Your task to perform on an android device: open the mobile data screen to see how much data has been used Image 0: 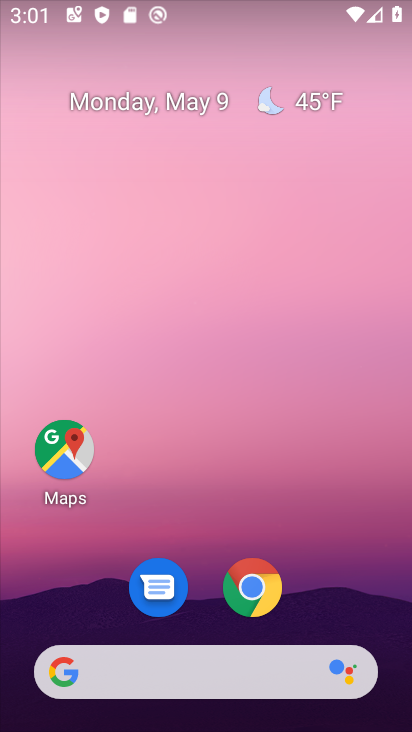
Step 0: drag from (204, 623) to (218, 265)
Your task to perform on an android device: open the mobile data screen to see how much data has been used Image 1: 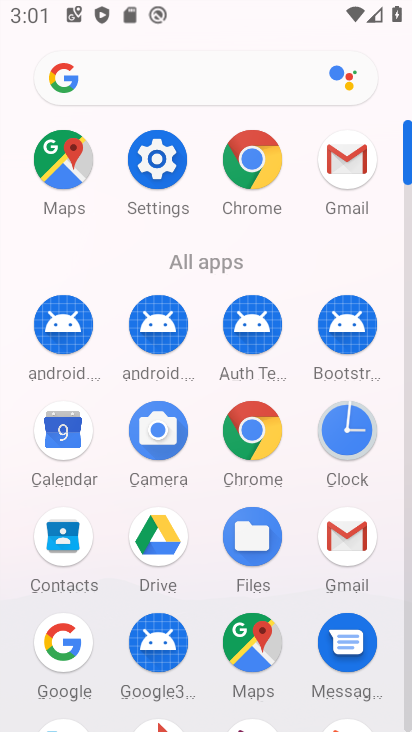
Step 1: drag from (123, 623) to (186, 435)
Your task to perform on an android device: open the mobile data screen to see how much data has been used Image 2: 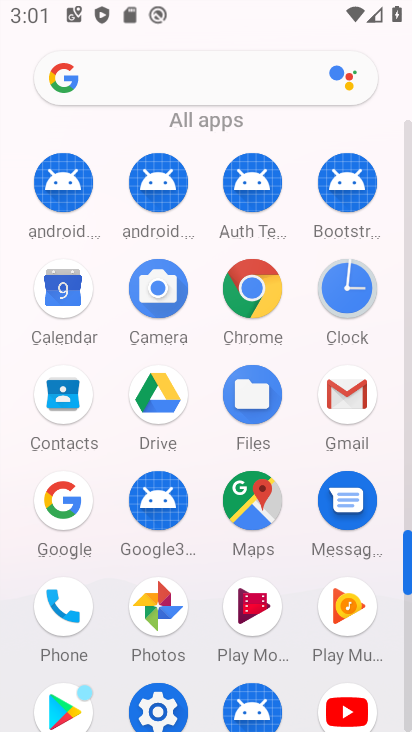
Step 2: click (160, 703)
Your task to perform on an android device: open the mobile data screen to see how much data has been used Image 3: 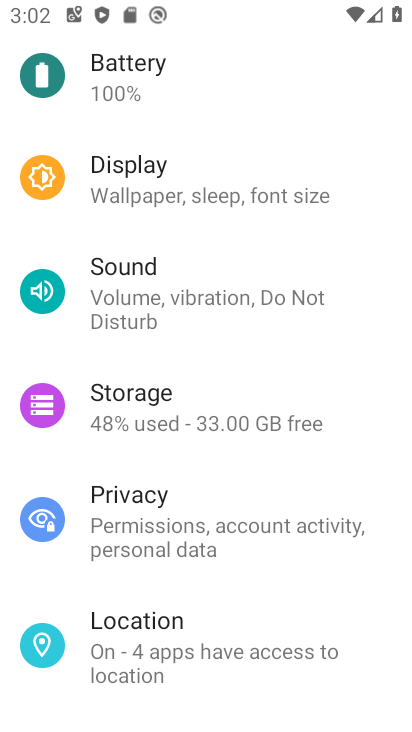
Step 3: drag from (320, 99) to (295, 322)
Your task to perform on an android device: open the mobile data screen to see how much data has been used Image 4: 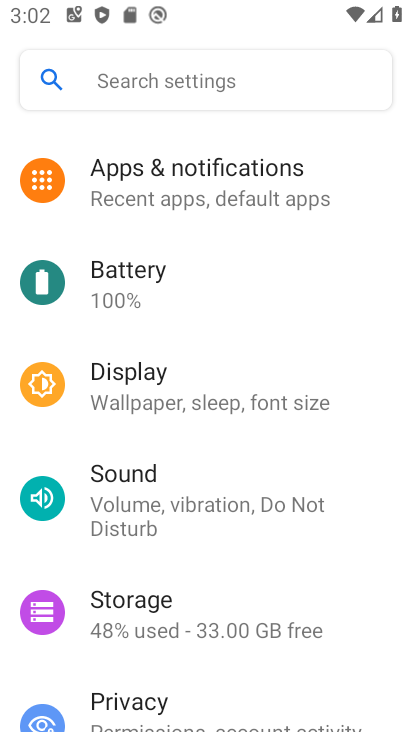
Step 4: drag from (296, 215) to (268, 412)
Your task to perform on an android device: open the mobile data screen to see how much data has been used Image 5: 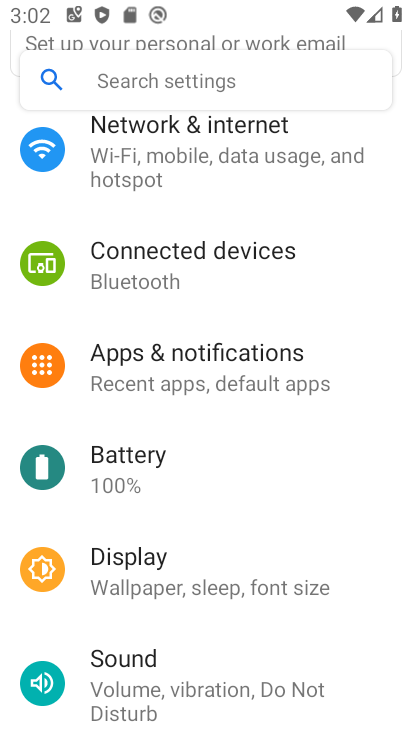
Step 5: click (300, 161)
Your task to perform on an android device: open the mobile data screen to see how much data has been used Image 6: 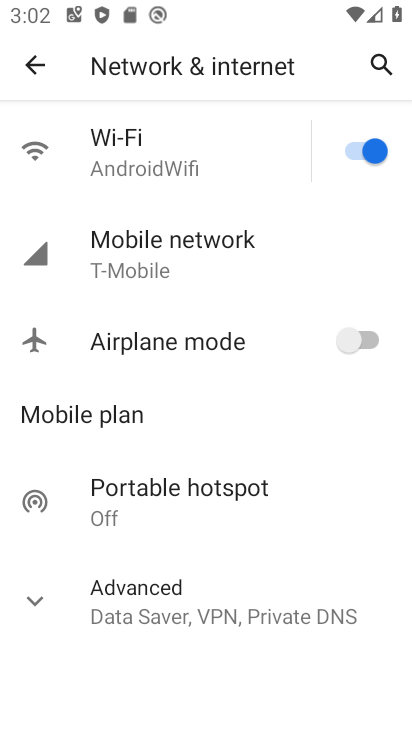
Step 6: click (301, 246)
Your task to perform on an android device: open the mobile data screen to see how much data has been used Image 7: 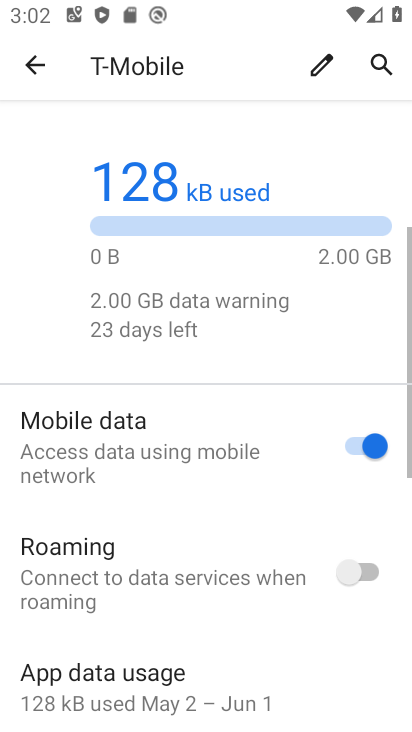
Step 7: click (301, 246)
Your task to perform on an android device: open the mobile data screen to see how much data has been used Image 8: 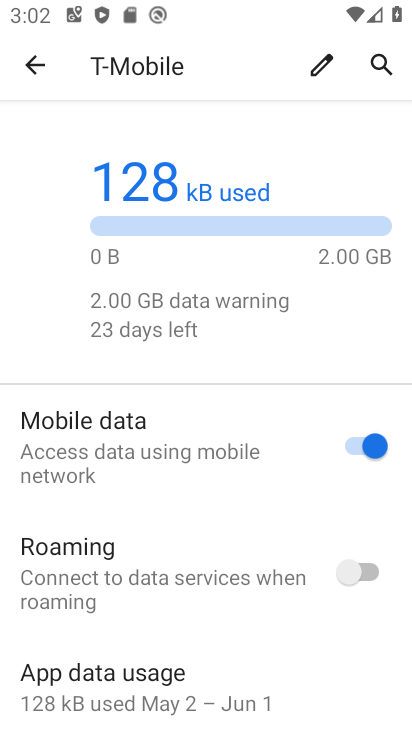
Step 8: task complete